Your task to perform on an android device: turn off picture-in-picture Image 0: 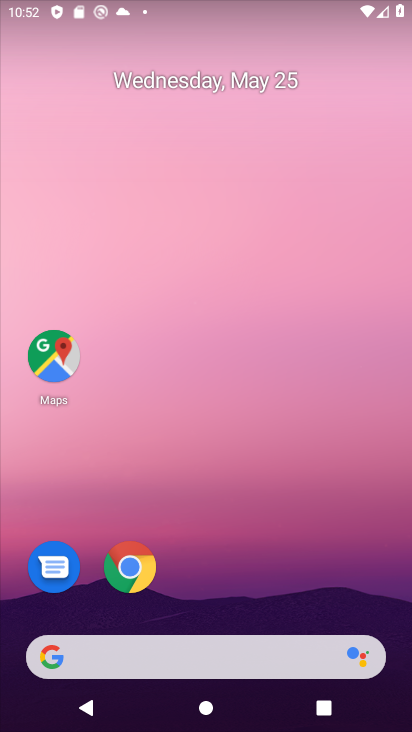
Step 0: click (125, 559)
Your task to perform on an android device: turn off picture-in-picture Image 1: 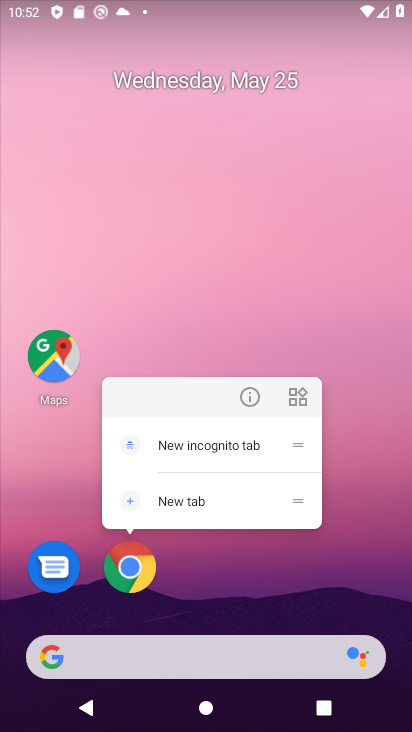
Step 1: click (241, 401)
Your task to perform on an android device: turn off picture-in-picture Image 2: 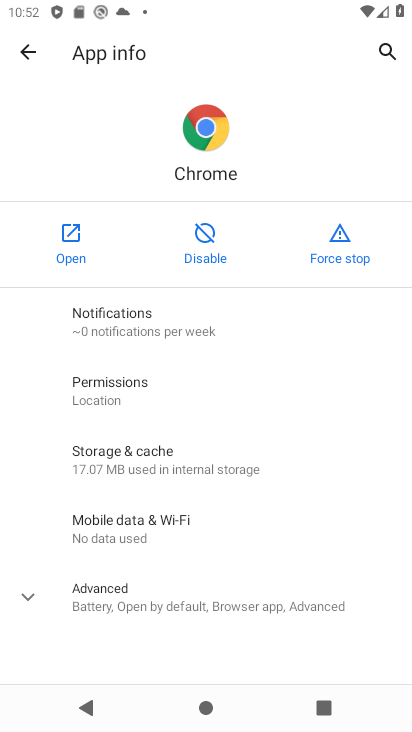
Step 2: drag from (209, 551) to (231, 432)
Your task to perform on an android device: turn off picture-in-picture Image 3: 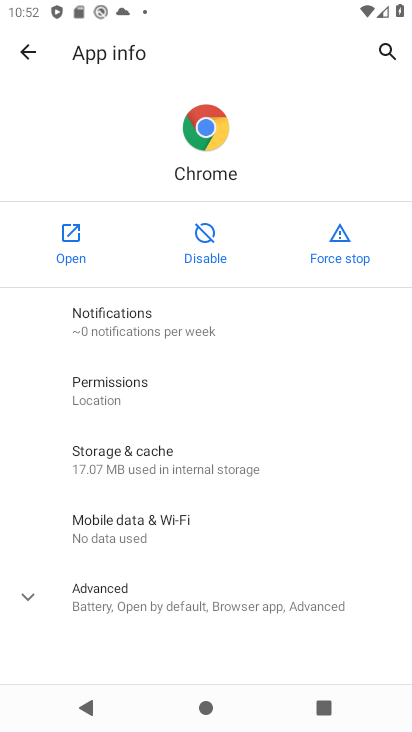
Step 3: click (100, 598)
Your task to perform on an android device: turn off picture-in-picture Image 4: 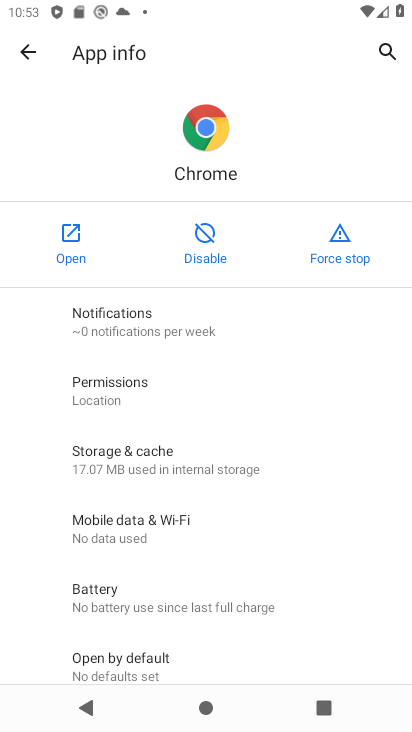
Step 4: drag from (169, 608) to (225, 278)
Your task to perform on an android device: turn off picture-in-picture Image 5: 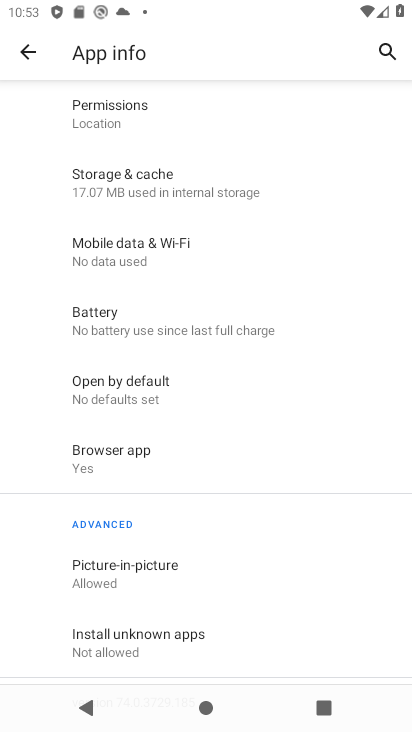
Step 5: drag from (171, 595) to (174, 405)
Your task to perform on an android device: turn off picture-in-picture Image 6: 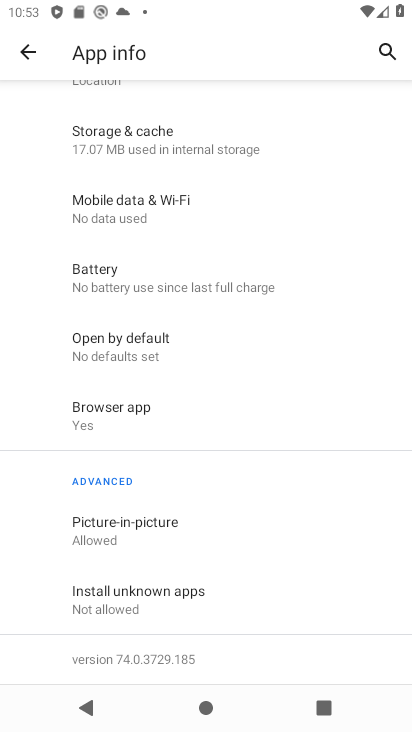
Step 6: click (119, 540)
Your task to perform on an android device: turn off picture-in-picture Image 7: 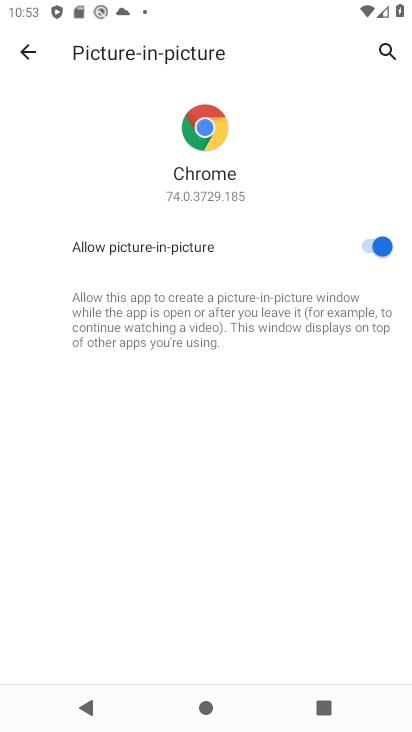
Step 7: click (355, 246)
Your task to perform on an android device: turn off picture-in-picture Image 8: 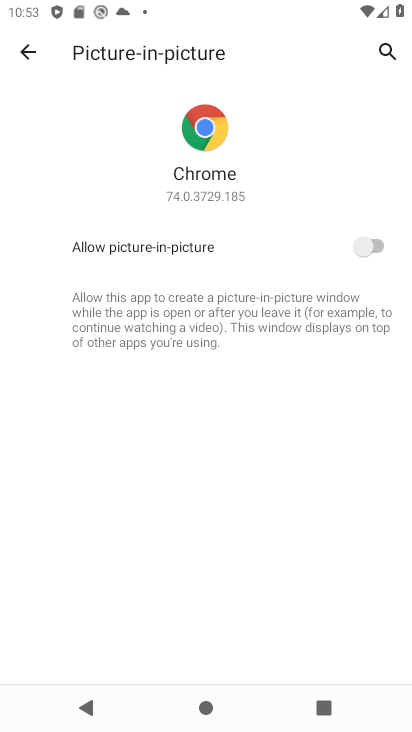
Step 8: task complete